Your task to perform on an android device: turn on location history Image 0: 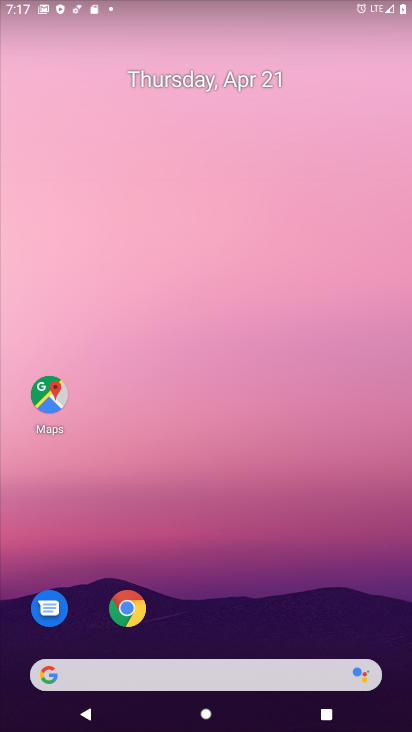
Step 0: drag from (245, 564) to (225, 130)
Your task to perform on an android device: turn on location history Image 1: 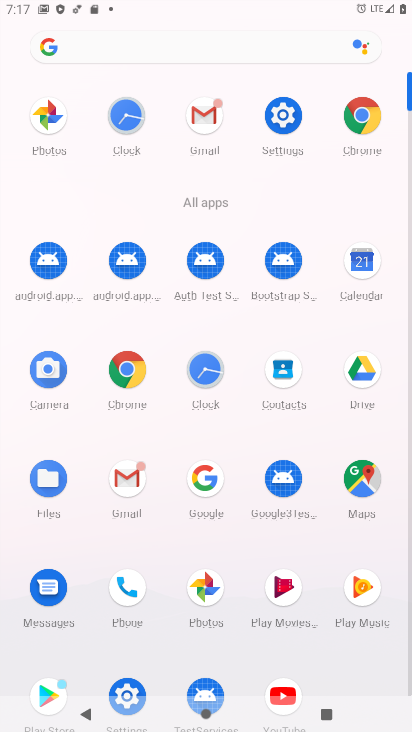
Step 1: click (285, 113)
Your task to perform on an android device: turn on location history Image 2: 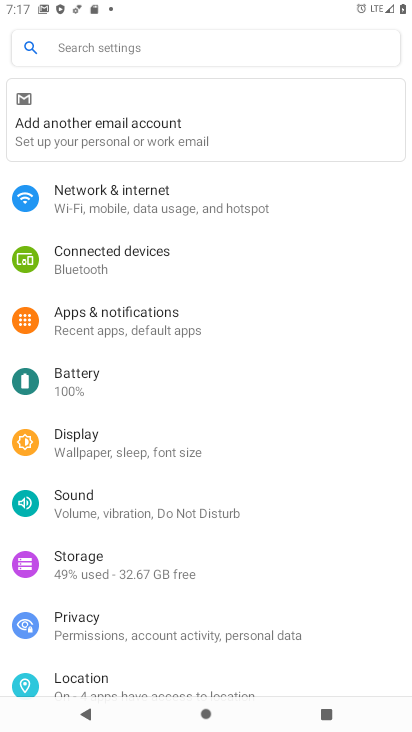
Step 2: click (131, 683)
Your task to perform on an android device: turn on location history Image 3: 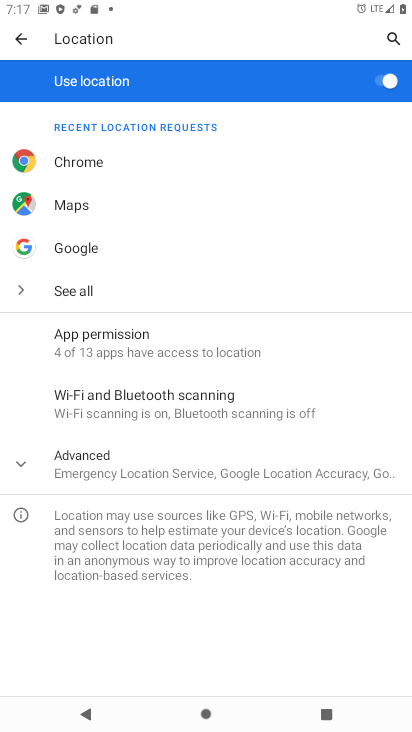
Step 3: click (19, 466)
Your task to perform on an android device: turn on location history Image 4: 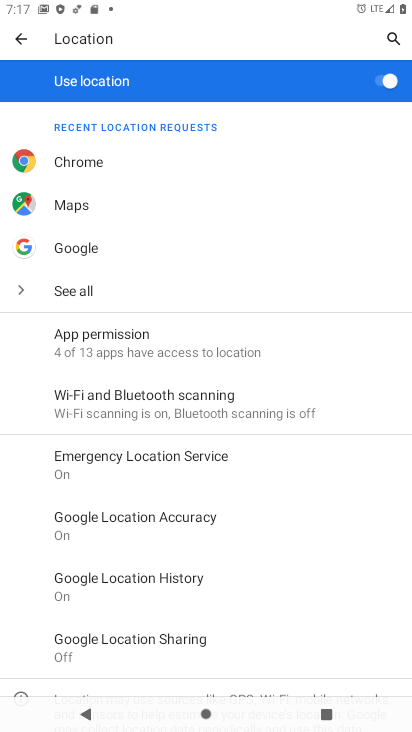
Step 4: click (179, 599)
Your task to perform on an android device: turn on location history Image 5: 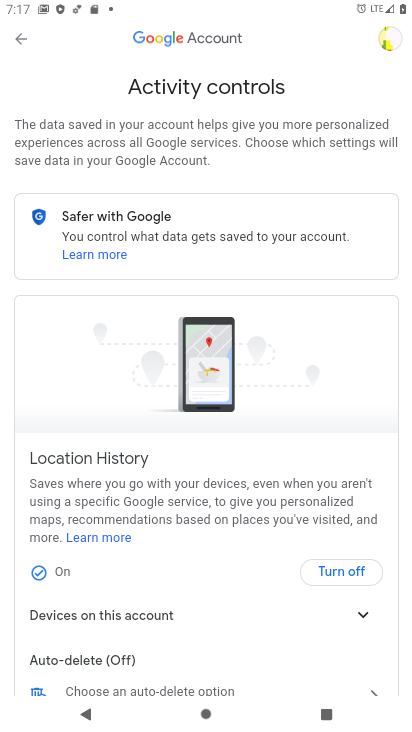
Step 5: task complete